Your task to perform on an android device: turn off notifications in google photos Image 0: 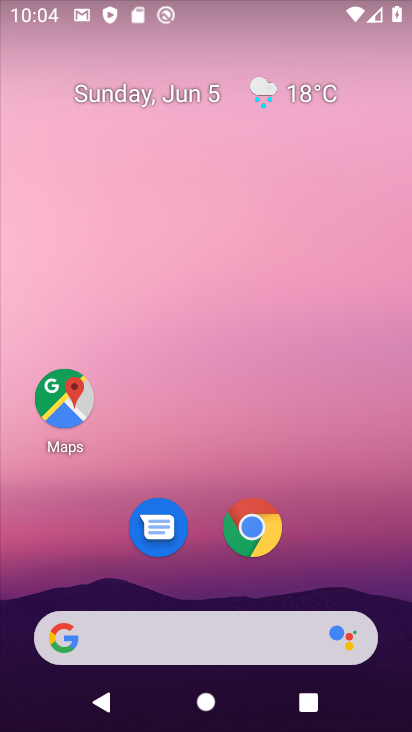
Step 0: drag from (6, 671) to (266, 304)
Your task to perform on an android device: turn off notifications in google photos Image 1: 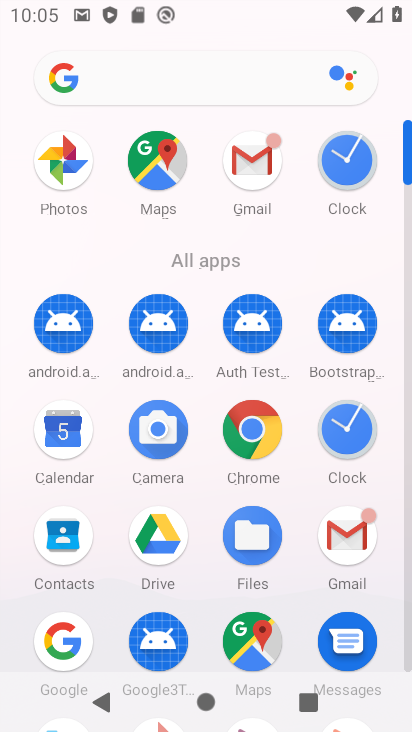
Step 1: drag from (8, 718) to (282, 150)
Your task to perform on an android device: turn off notifications in google photos Image 2: 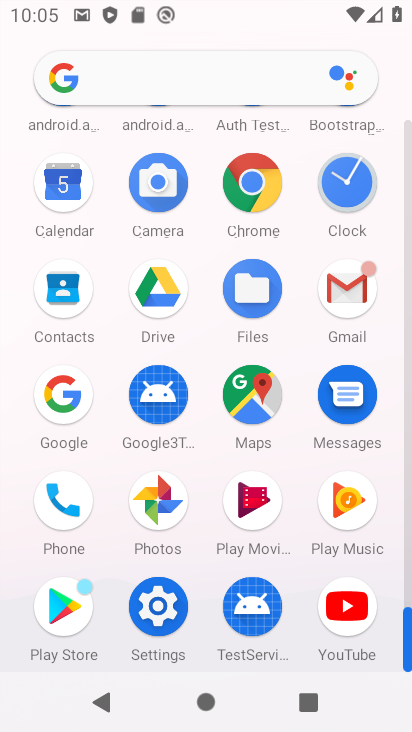
Step 2: click (138, 603)
Your task to perform on an android device: turn off notifications in google photos Image 3: 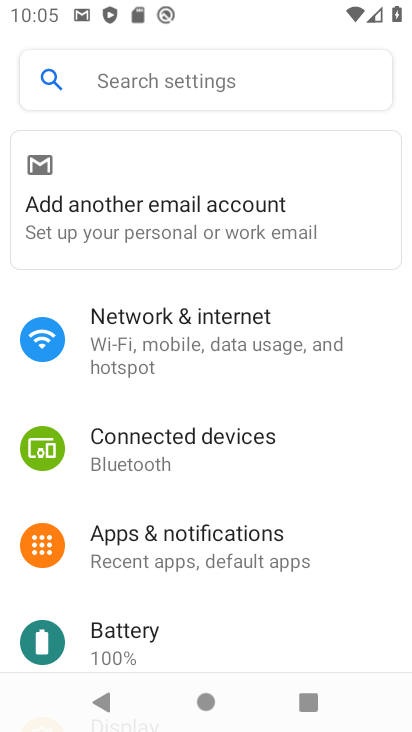
Step 3: click (91, 558)
Your task to perform on an android device: turn off notifications in google photos Image 4: 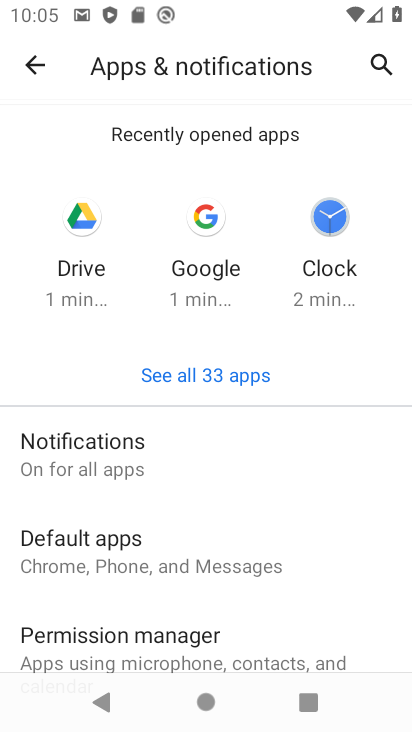
Step 4: click (182, 459)
Your task to perform on an android device: turn off notifications in google photos Image 5: 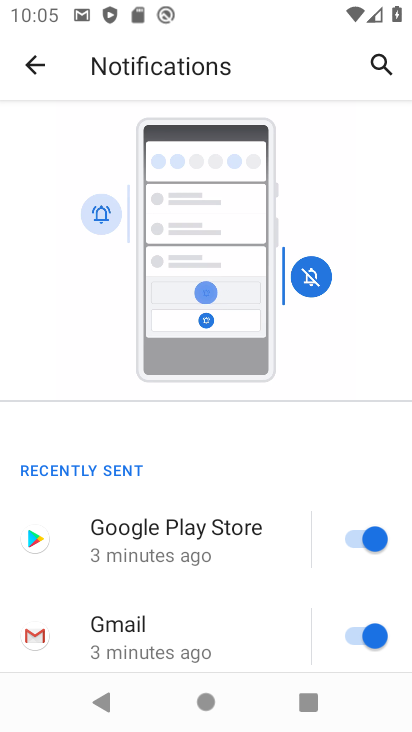
Step 5: press back button
Your task to perform on an android device: turn off notifications in google photos Image 6: 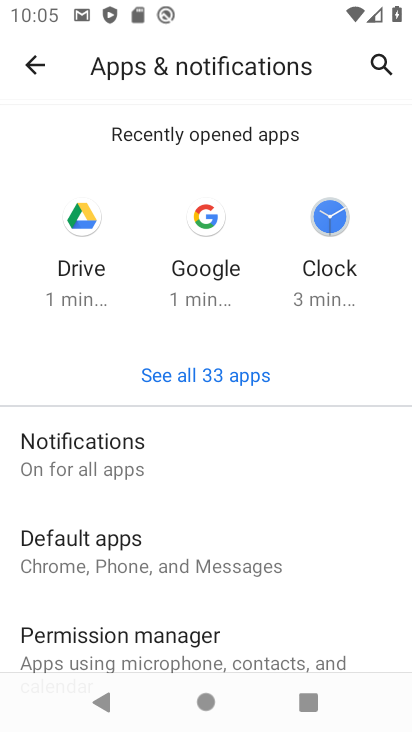
Step 6: press home button
Your task to perform on an android device: turn off notifications in google photos Image 7: 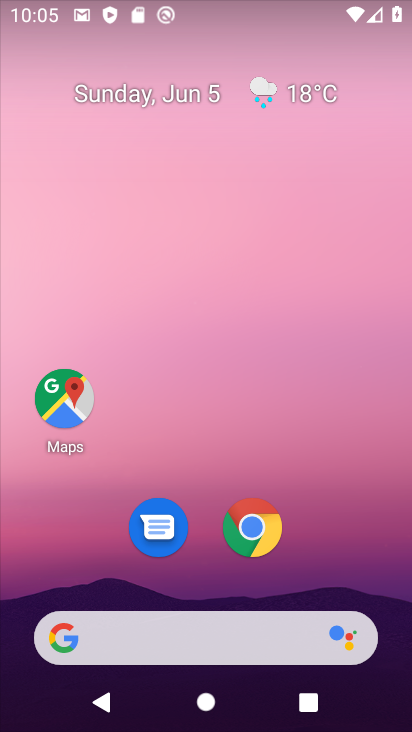
Step 7: drag from (42, 486) to (196, 48)
Your task to perform on an android device: turn off notifications in google photos Image 8: 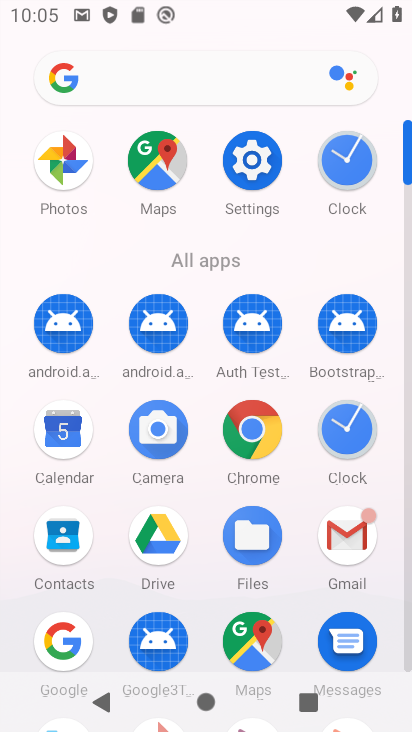
Step 8: click (59, 171)
Your task to perform on an android device: turn off notifications in google photos Image 9: 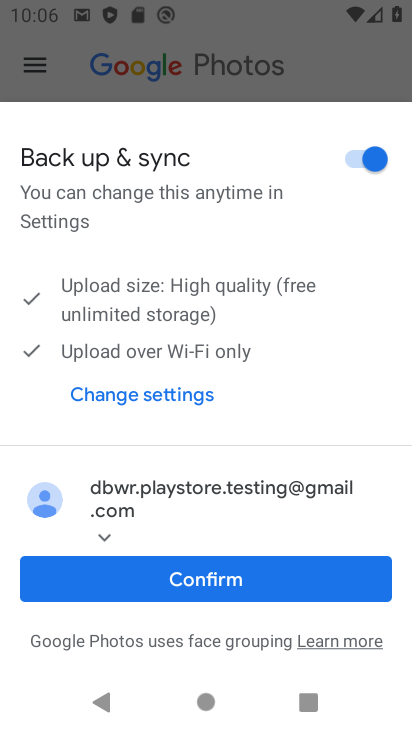
Step 9: click (176, 590)
Your task to perform on an android device: turn off notifications in google photos Image 10: 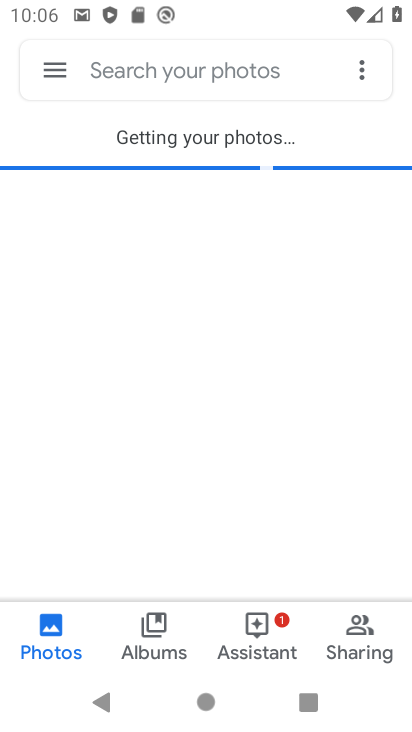
Step 10: click (51, 69)
Your task to perform on an android device: turn off notifications in google photos Image 11: 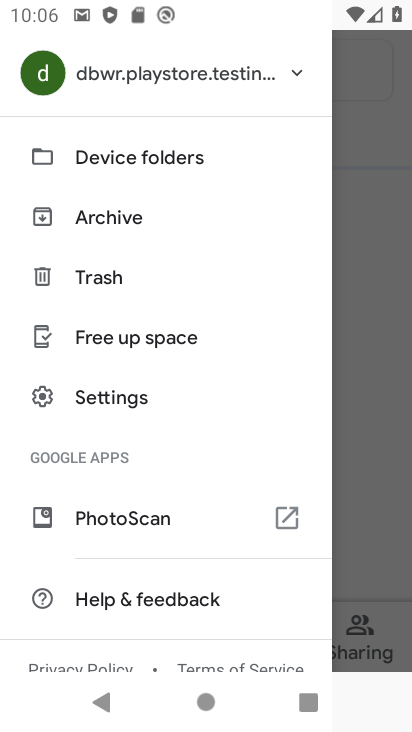
Step 11: click (69, 400)
Your task to perform on an android device: turn off notifications in google photos Image 12: 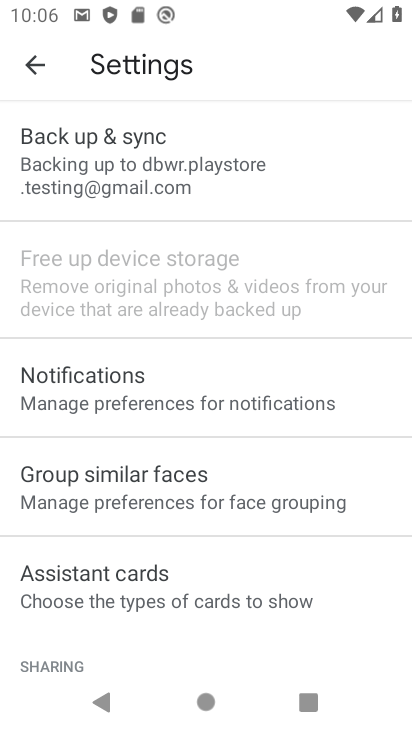
Step 12: drag from (47, 414) to (217, 69)
Your task to perform on an android device: turn off notifications in google photos Image 13: 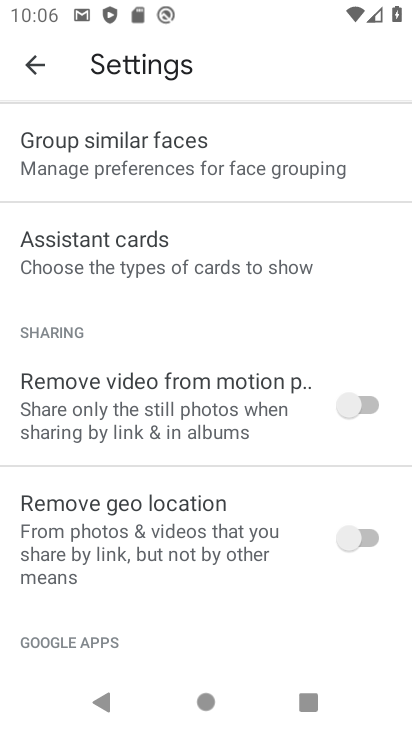
Step 13: drag from (9, 585) to (252, 47)
Your task to perform on an android device: turn off notifications in google photos Image 14: 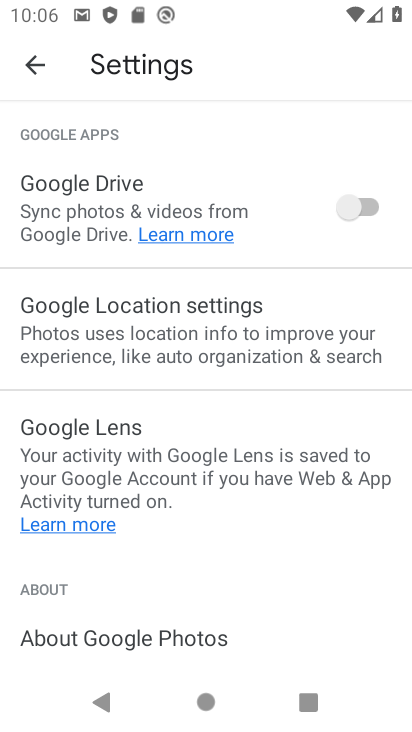
Step 14: drag from (268, 117) to (182, 622)
Your task to perform on an android device: turn off notifications in google photos Image 15: 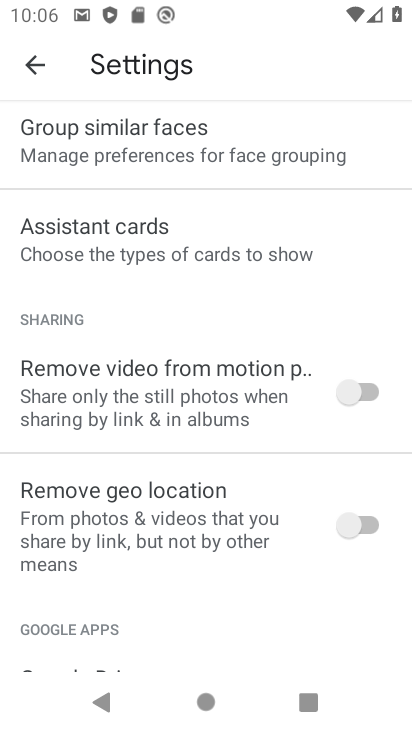
Step 15: drag from (149, 229) to (85, 602)
Your task to perform on an android device: turn off notifications in google photos Image 16: 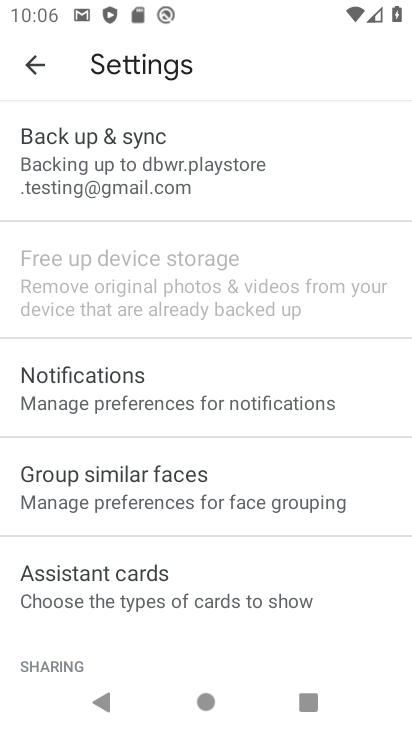
Step 16: click (53, 409)
Your task to perform on an android device: turn off notifications in google photos Image 17: 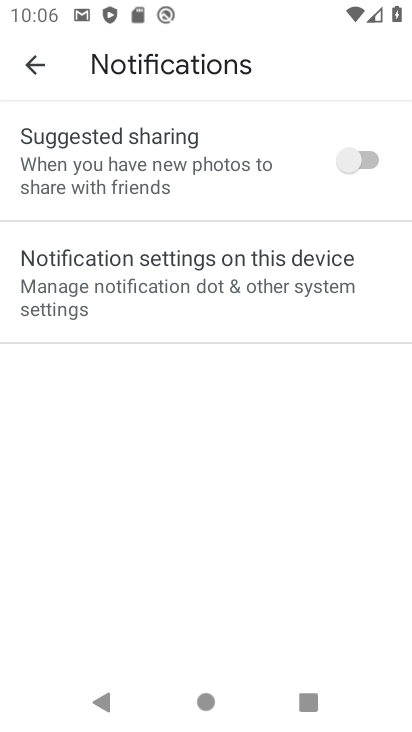
Step 17: click (101, 297)
Your task to perform on an android device: turn off notifications in google photos Image 18: 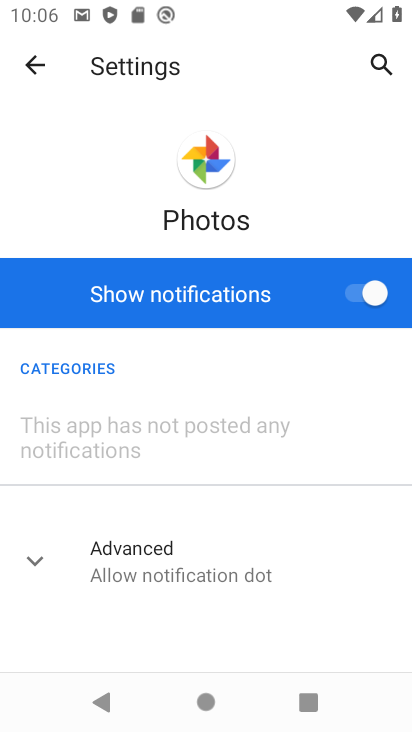
Step 18: click (369, 292)
Your task to perform on an android device: turn off notifications in google photos Image 19: 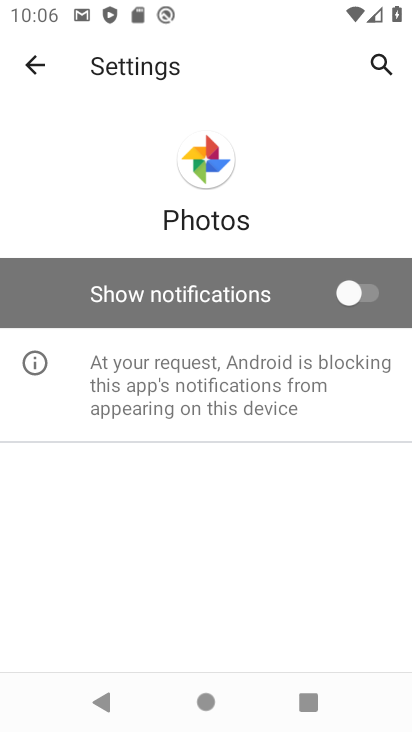
Step 19: task complete